Your task to perform on an android device: turn off translation in the chrome app Image 0: 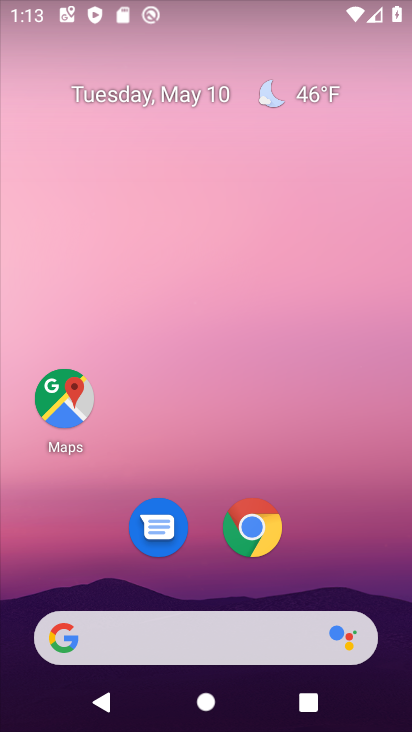
Step 0: click (260, 536)
Your task to perform on an android device: turn off translation in the chrome app Image 1: 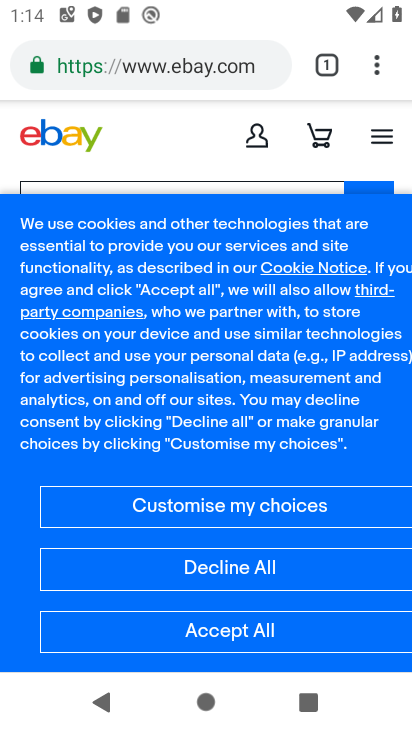
Step 1: drag from (379, 68) to (180, 589)
Your task to perform on an android device: turn off translation in the chrome app Image 2: 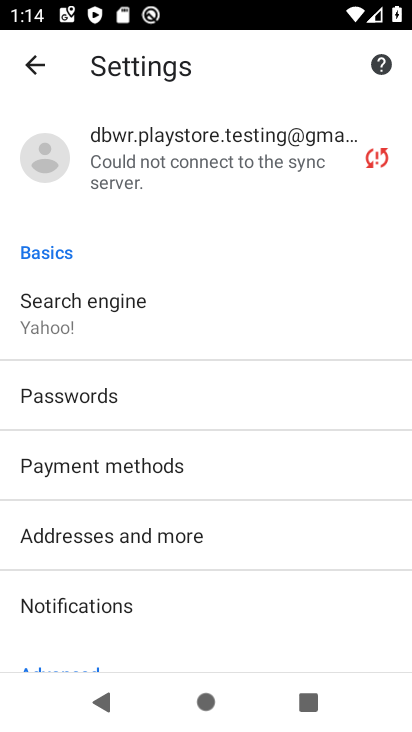
Step 2: drag from (169, 588) to (144, 292)
Your task to perform on an android device: turn off translation in the chrome app Image 3: 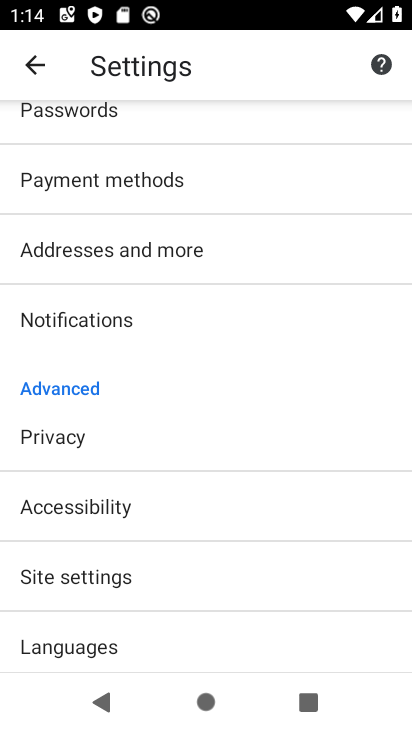
Step 3: drag from (210, 592) to (189, 401)
Your task to perform on an android device: turn off translation in the chrome app Image 4: 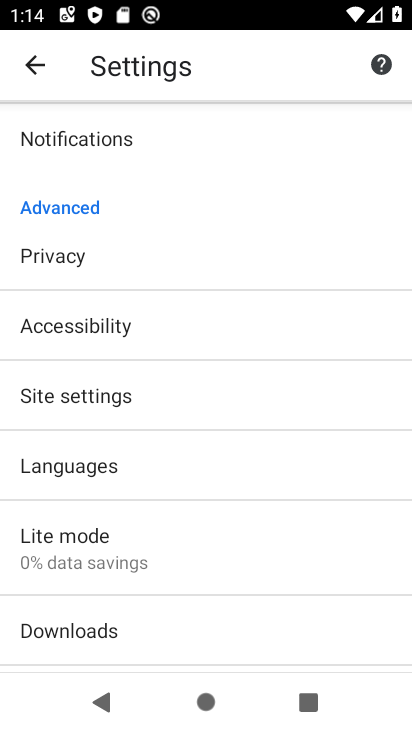
Step 4: click (63, 399)
Your task to perform on an android device: turn off translation in the chrome app Image 5: 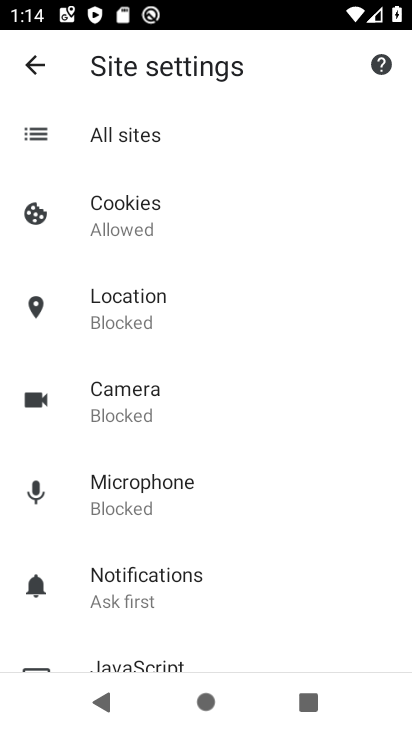
Step 5: click (137, 582)
Your task to perform on an android device: turn off translation in the chrome app Image 6: 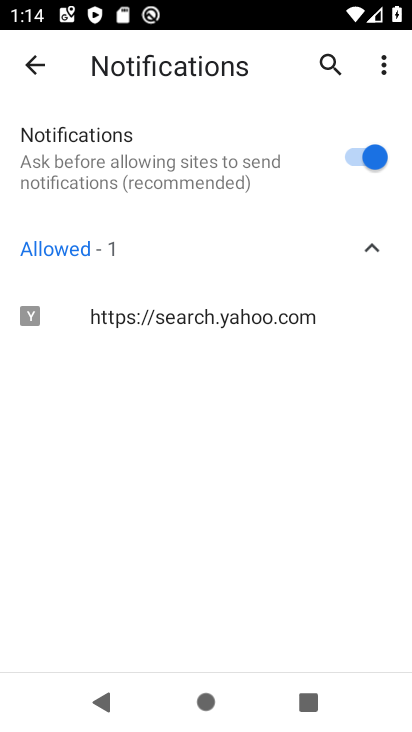
Step 6: click (365, 149)
Your task to perform on an android device: turn off translation in the chrome app Image 7: 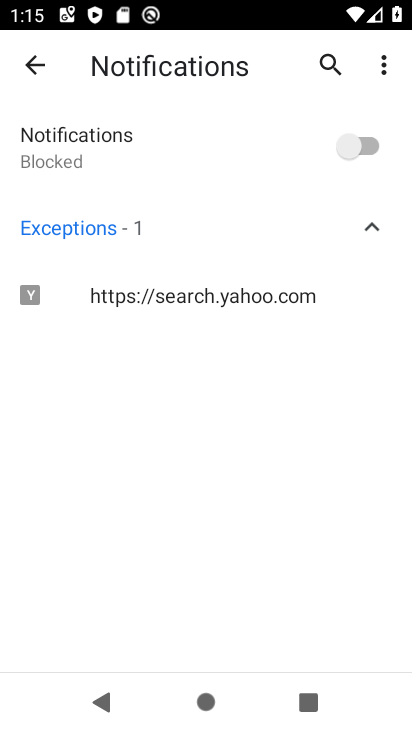
Step 7: task complete